Your task to perform on an android device: delete the emails in spam in the gmail app Image 0: 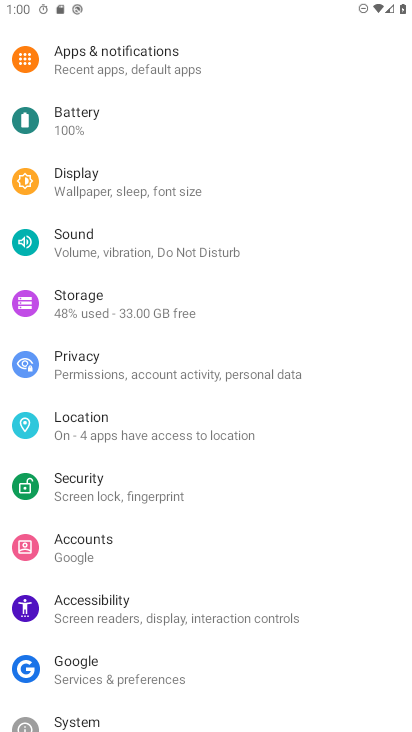
Step 0: press home button
Your task to perform on an android device: delete the emails in spam in the gmail app Image 1: 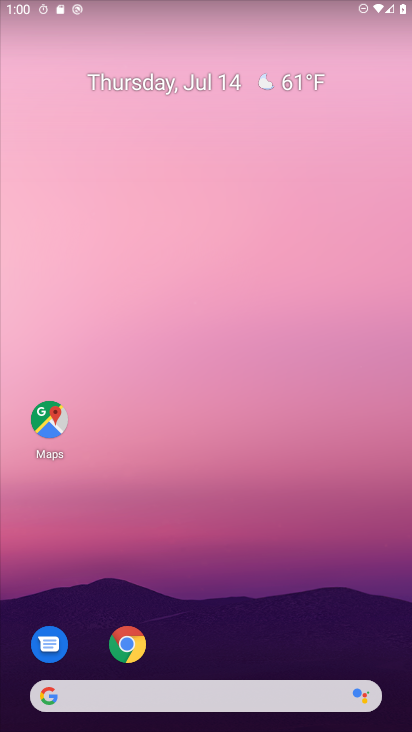
Step 1: drag from (227, 437) to (170, 33)
Your task to perform on an android device: delete the emails in spam in the gmail app Image 2: 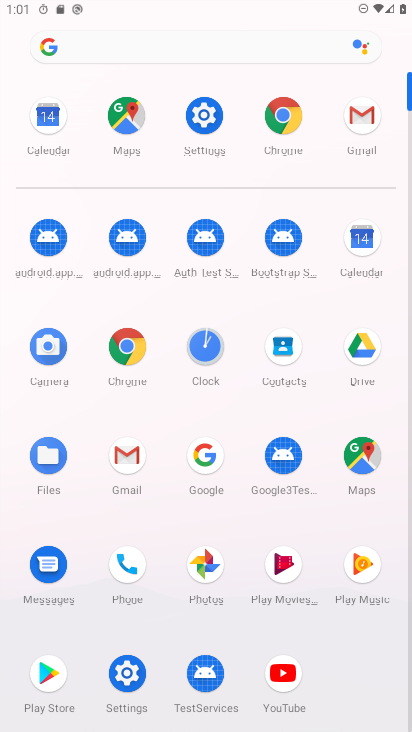
Step 2: click (370, 113)
Your task to perform on an android device: delete the emails in spam in the gmail app Image 3: 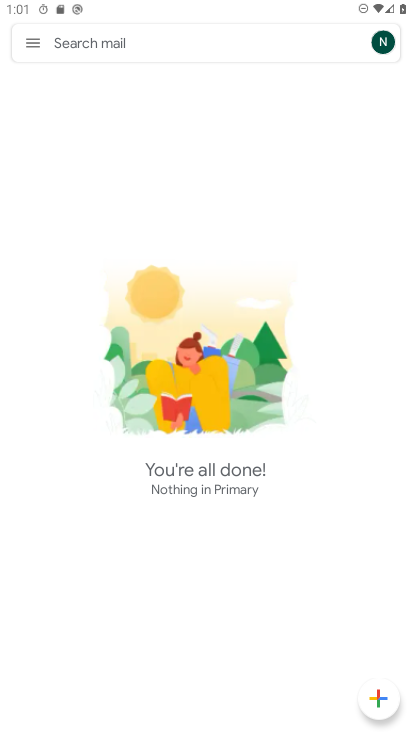
Step 3: click (35, 42)
Your task to perform on an android device: delete the emails in spam in the gmail app Image 4: 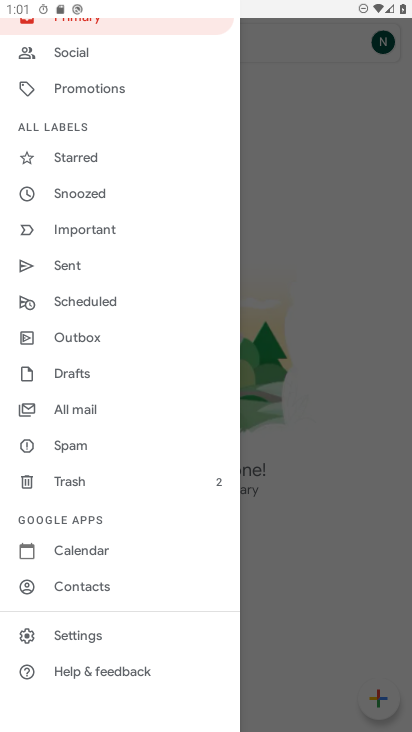
Step 4: click (88, 450)
Your task to perform on an android device: delete the emails in spam in the gmail app Image 5: 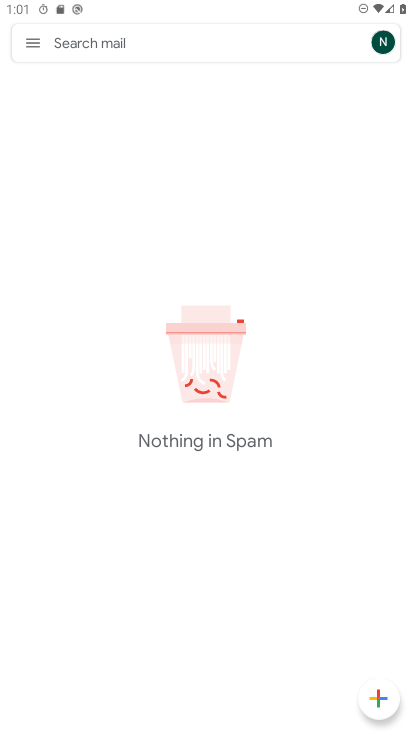
Step 5: task complete